Your task to perform on an android device: Open wifi settings Image 0: 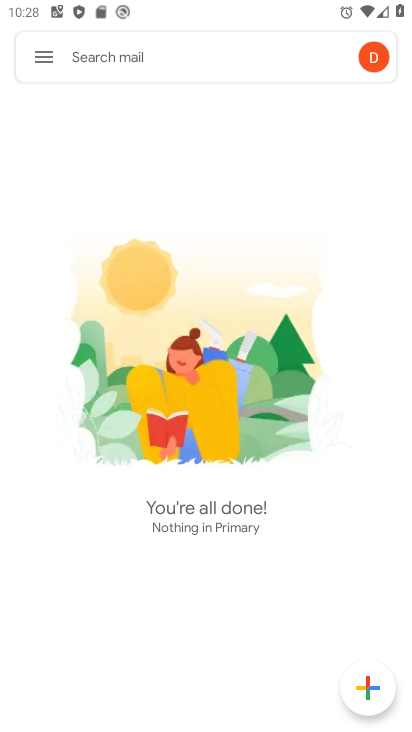
Step 0: press home button
Your task to perform on an android device: Open wifi settings Image 1: 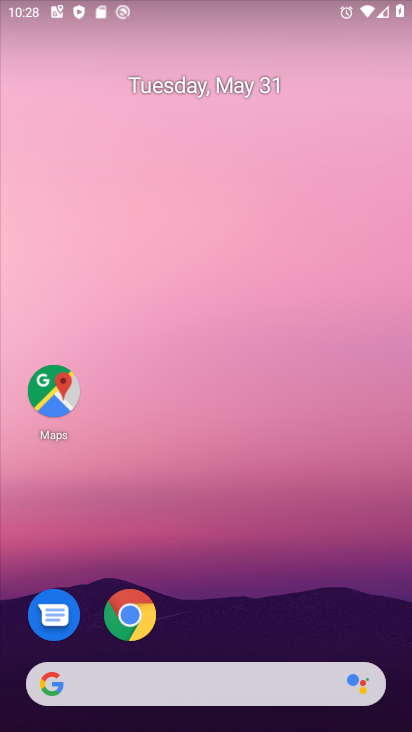
Step 1: drag from (314, 526) to (324, 10)
Your task to perform on an android device: Open wifi settings Image 2: 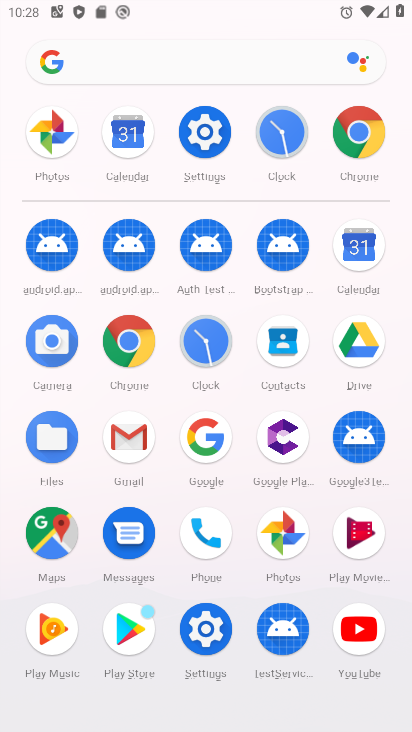
Step 2: click (202, 133)
Your task to perform on an android device: Open wifi settings Image 3: 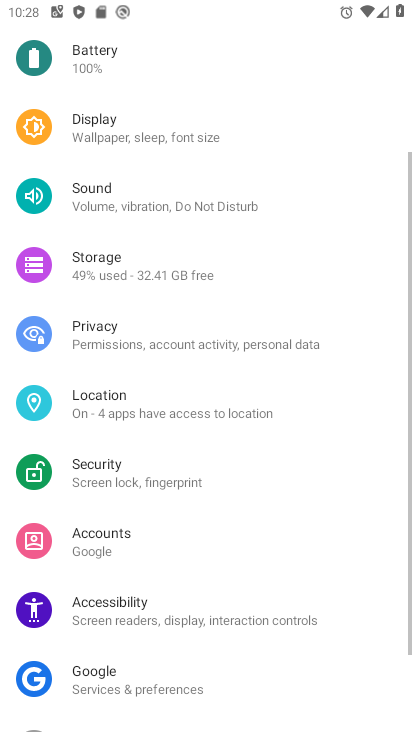
Step 3: drag from (264, 147) to (301, 614)
Your task to perform on an android device: Open wifi settings Image 4: 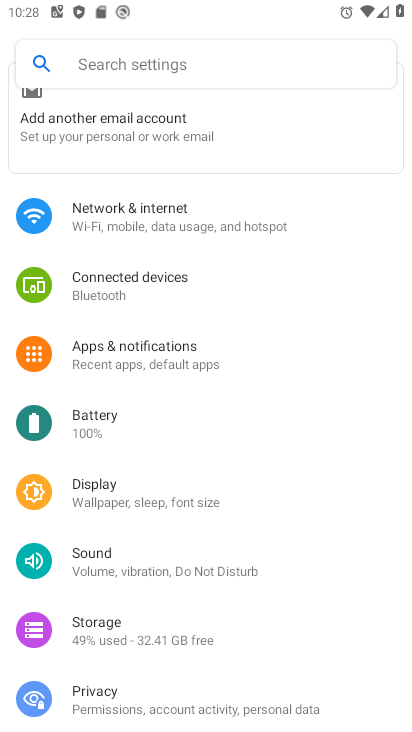
Step 4: click (149, 230)
Your task to perform on an android device: Open wifi settings Image 5: 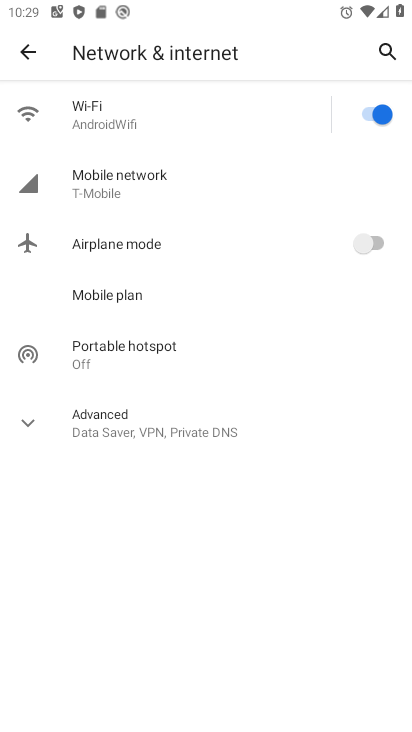
Step 5: click (84, 123)
Your task to perform on an android device: Open wifi settings Image 6: 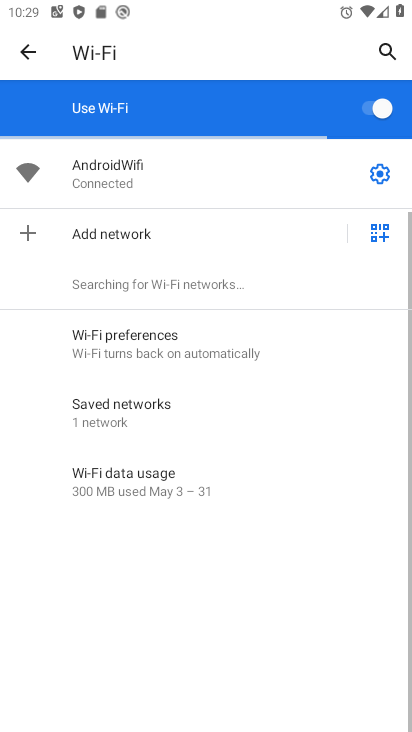
Step 6: task complete